Your task to perform on an android device: change the clock style Image 0: 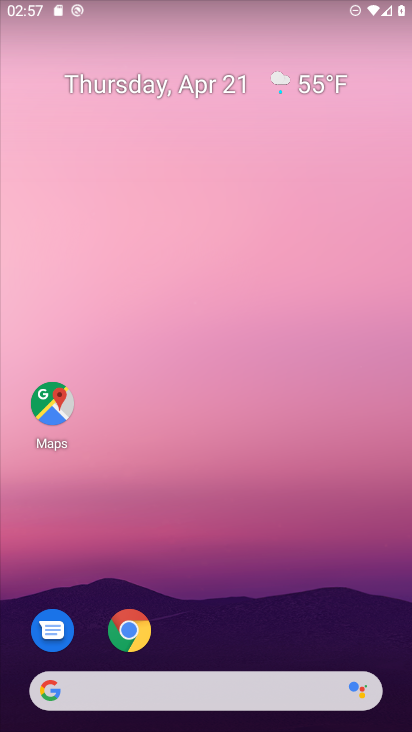
Step 0: drag from (345, 641) to (345, 5)
Your task to perform on an android device: change the clock style Image 1: 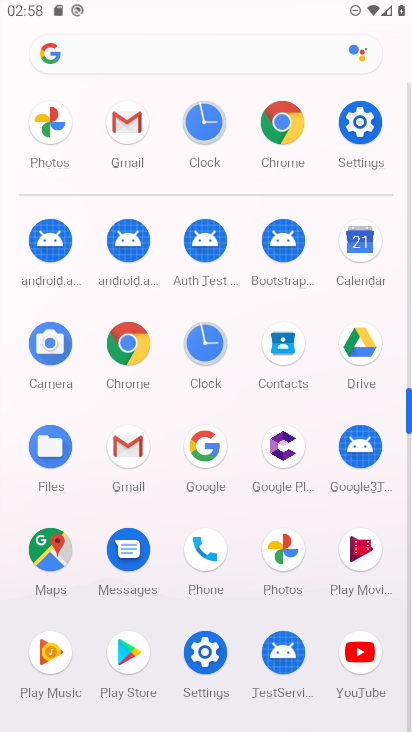
Step 1: click (371, 120)
Your task to perform on an android device: change the clock style Image 2: 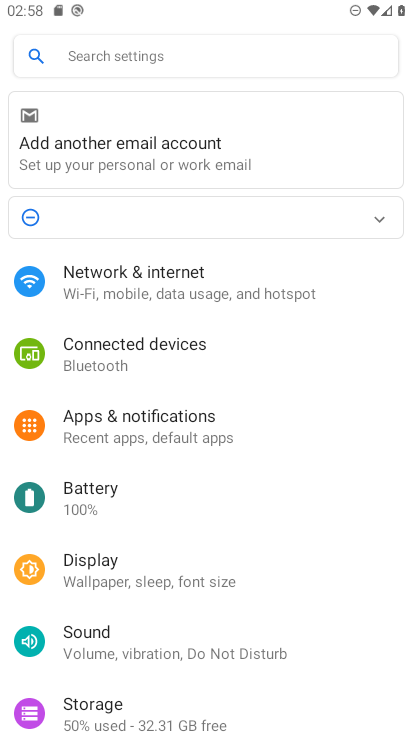
Step 2: press home button
Your task to perform on an android device: change the clock style Image 3: 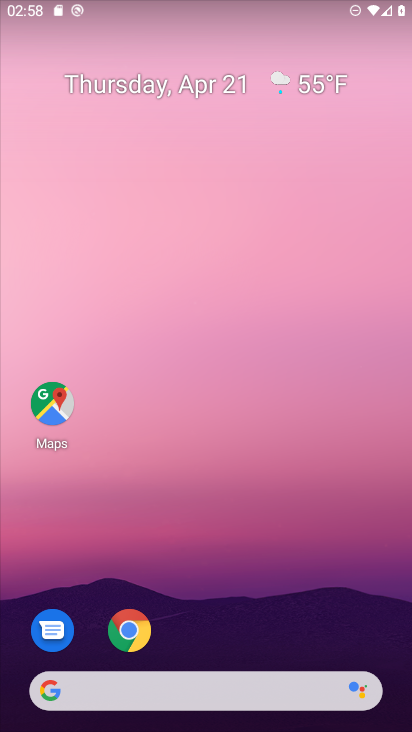
Step 3: drag from (294, 626) to (318, 20)
Your task to perform on an android device: change the clock style Image 4: 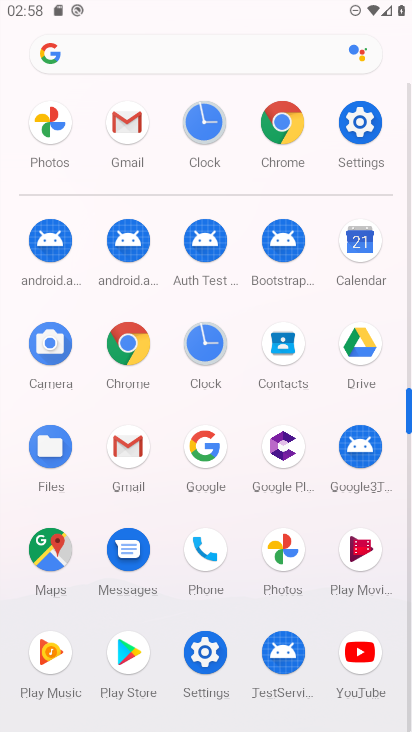
Step 4: click (351, 143)
Your task to perform on an android device: change the clock style Image 5: 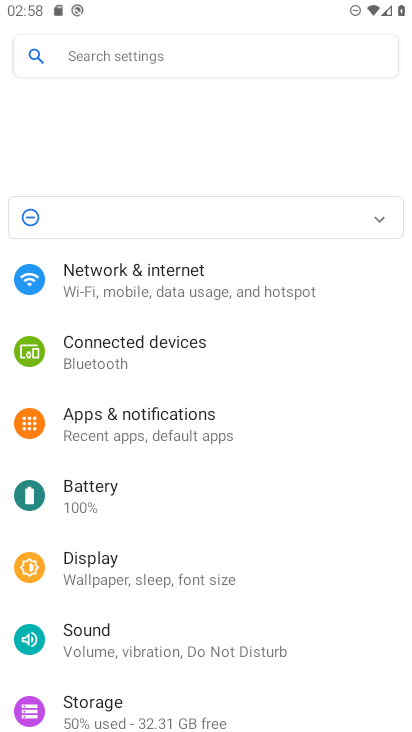
Step 5: press home button
Your task to perform on an android device: change the clock style Image 6: 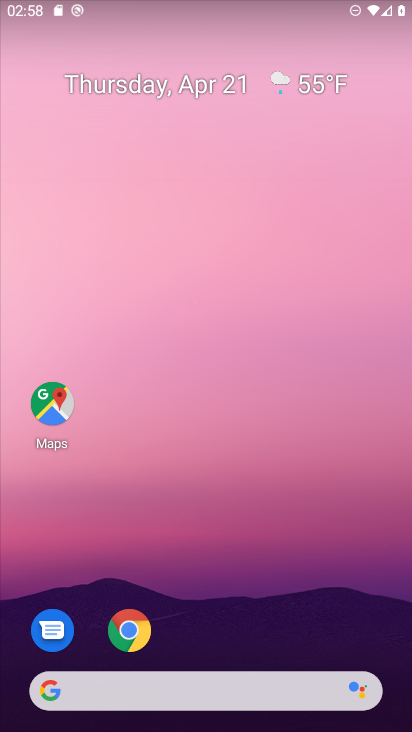
Step 6: click (231, 90)
Your task to perform on an android device: change the clock style Image 7: 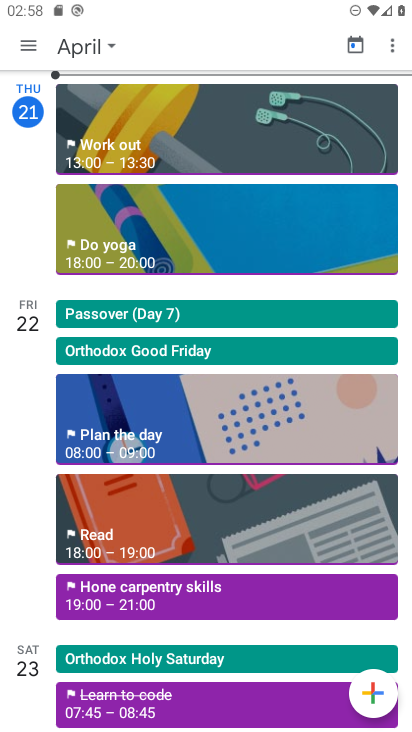
Step 7: press home button
Your task to perform on an android device: change the clock style Image 8: 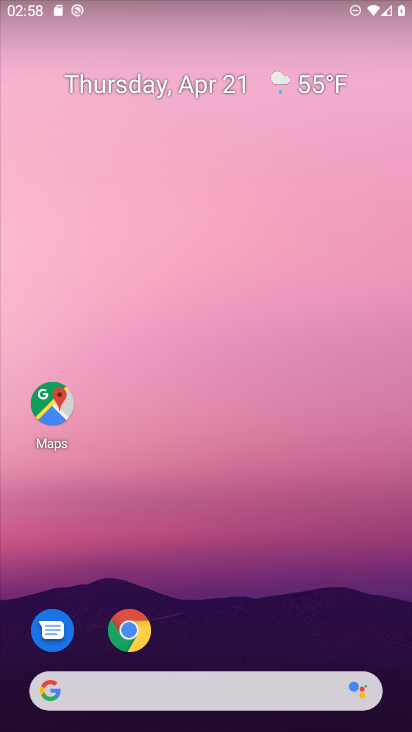
Step 8: drag from (242, 600) to (264, 113)
Your task to perform on an android device: change the clock style Image 9: 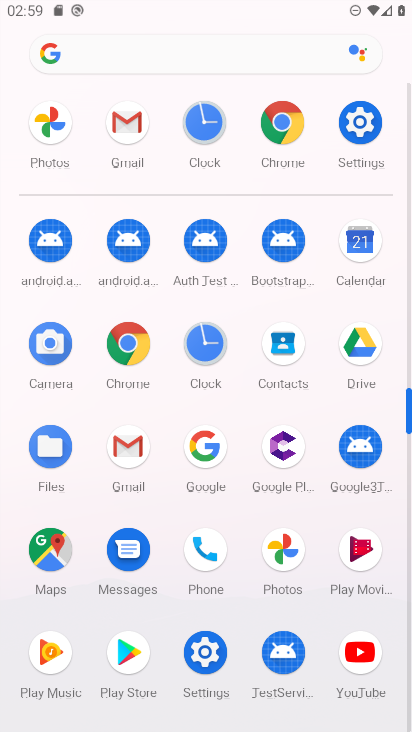
Step 9: click (190, 340)
Your task to perform on an android device: change the clock style Image 10: 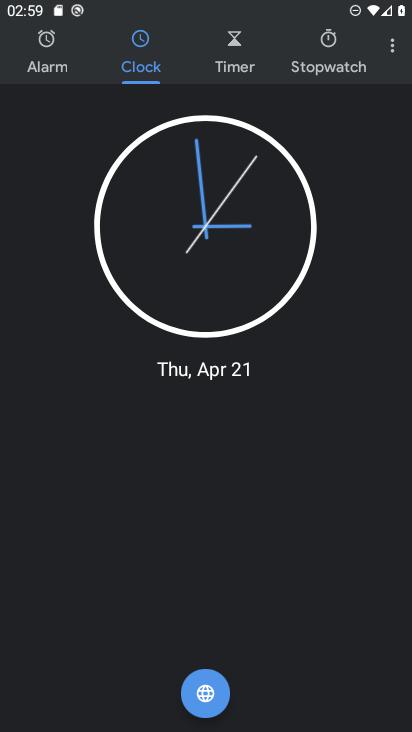
Step 10: click (388, 46)
Your task to perform on an android device: change the clock style Image 11: 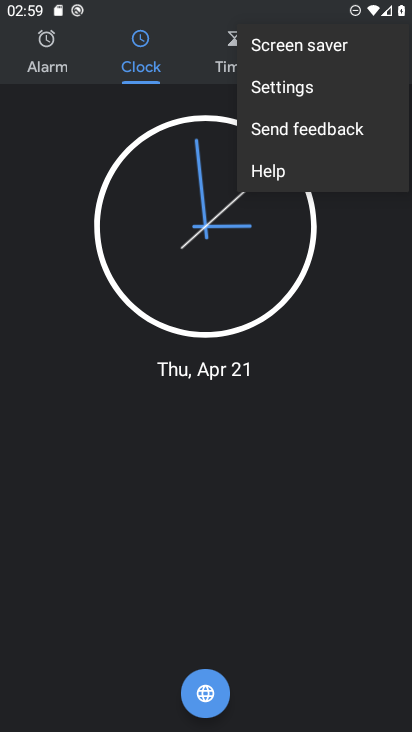
Step 11: click (334, 105)
Your task to perform on an android device: change the clock style Image 12: 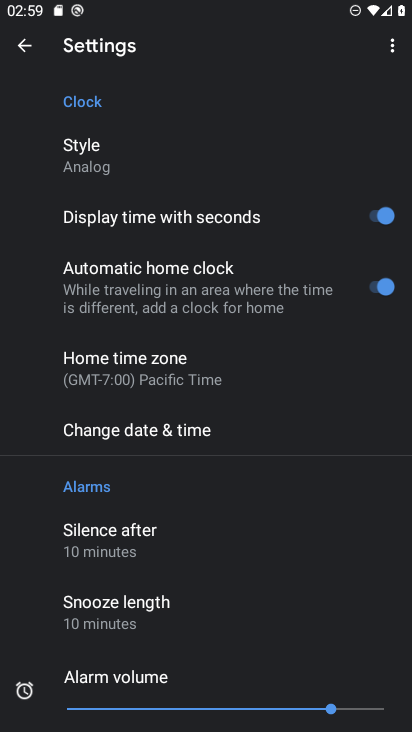
Step 12: click (199, 162)
Your task to perform on an android device: change the clock style Image 13: 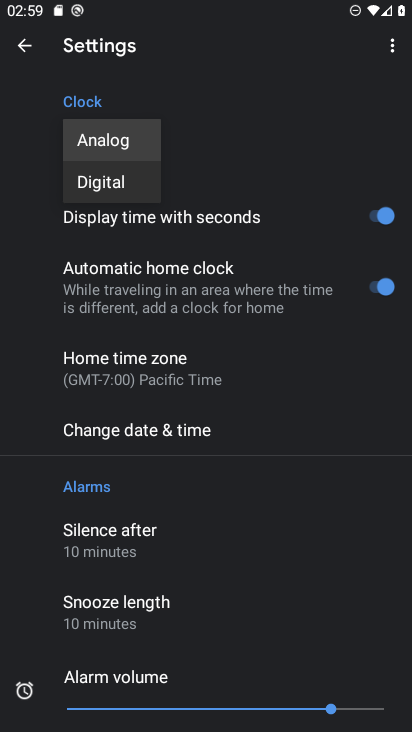
Step 13: click (121, 189)
Your task to perform on an android device: change the clock style Image 14: 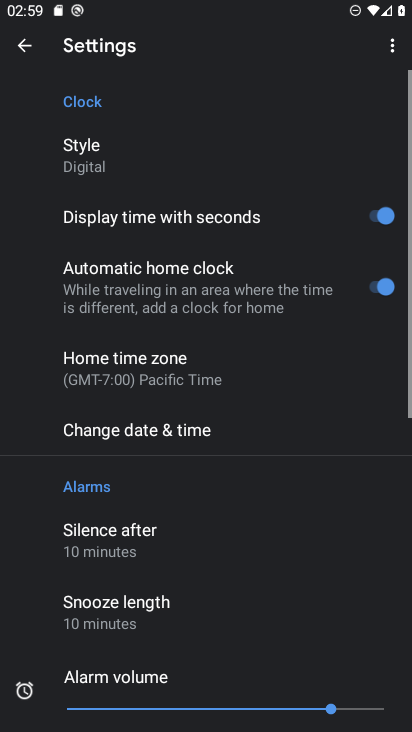
Step 14: task complete